Your task to perform on an android device: clear all cookies in the chrome app Image 0: 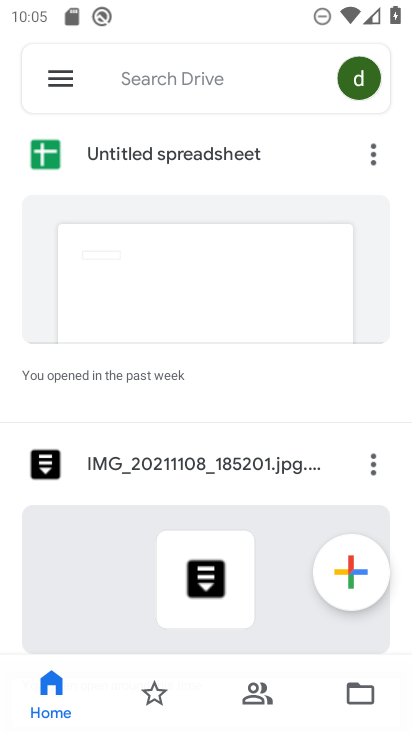
Step 0: press home button
Your task to perform on an android device: clear all cookies in the chrome app Image 1: 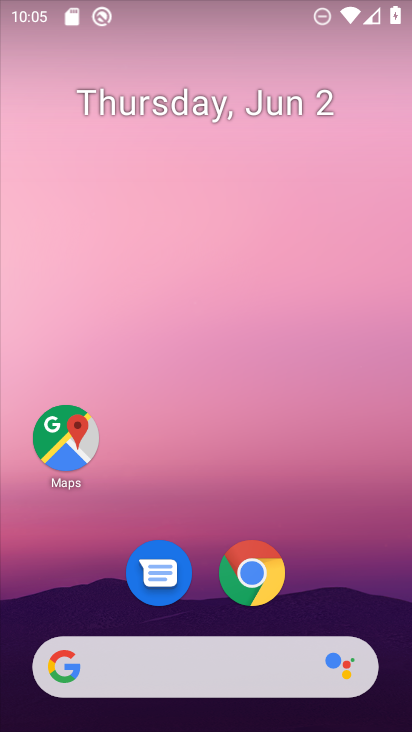
Step 1: click (249, 575)
Your task to perform on an android device: clear all cookies in the chrome app Image 2: 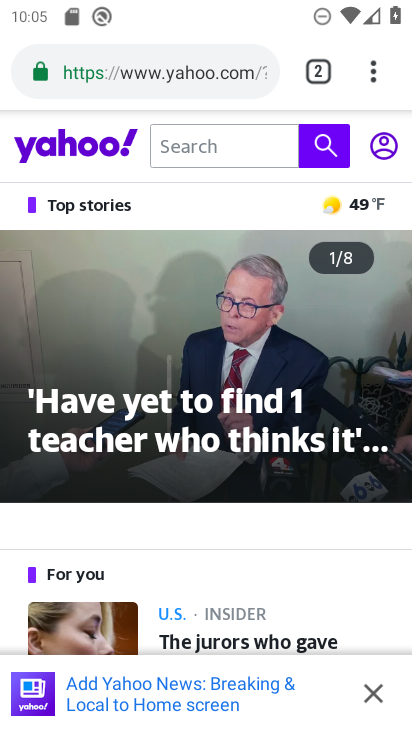
Step 2: drag from (380, 64) to (247, 576)
Your task to perform on an android device: clear all cookies in the chrome app Image 3: 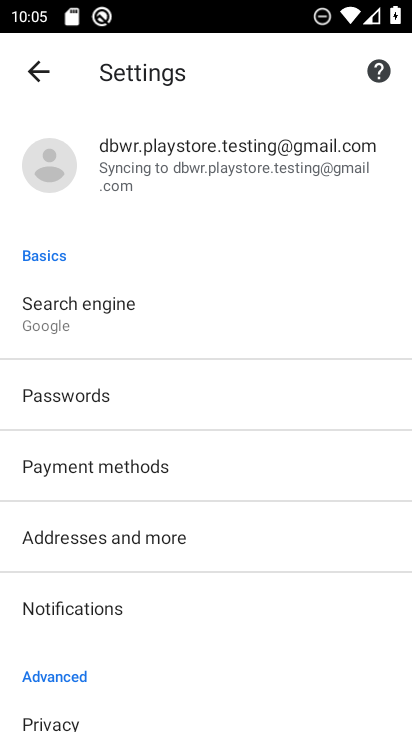
Step 3: click (44, 66)
Your task to perform on an android device: clear all cookies in the chrome app Image 4: 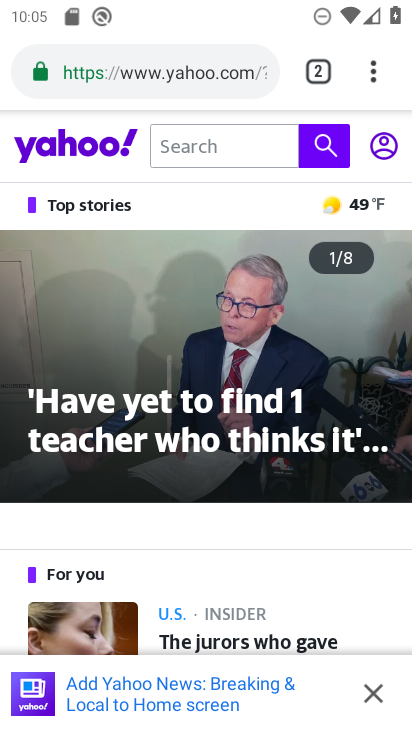
Step 4: drag from (375, 55) to (161, 400)
Your task to perform on an android device: clear all cookies in the chrome app Image 5: 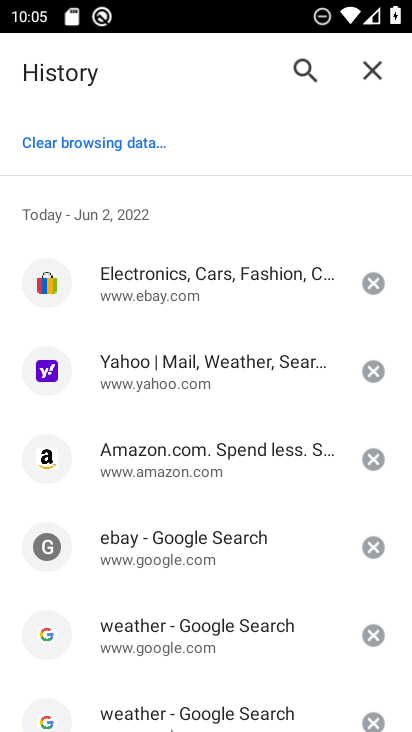
Step 5: click (135, 148)
Your task to perform on an android device: clear all cookies in the chrome app Image 6: 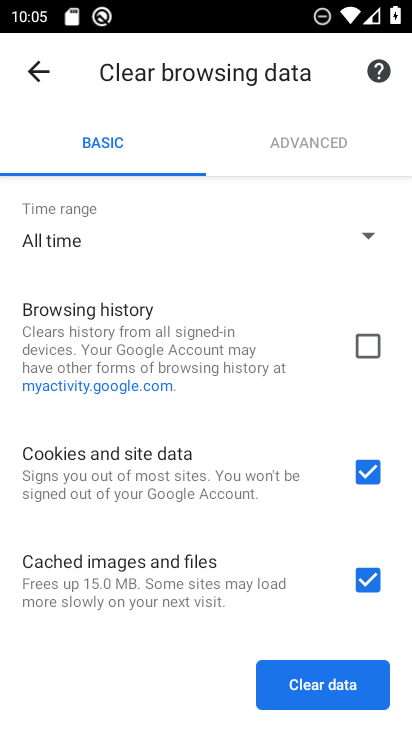
Step 6: click (353, 683)
Your task to perform on an android device: clear all cookies in the chrome app Image 7: 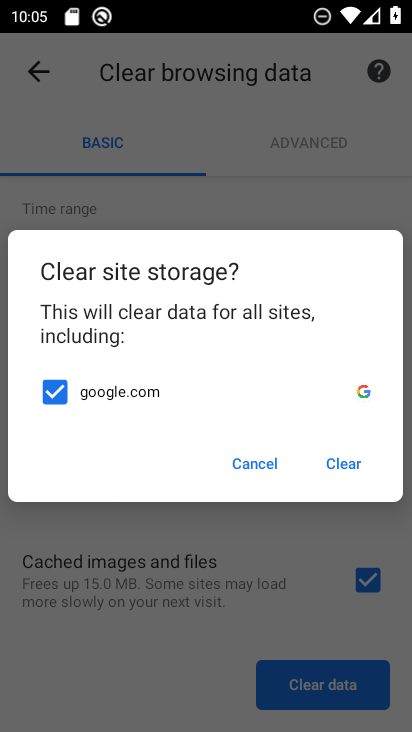
Step 7: click (359, 468)
Your task to perform on an android device: clear all cookies in the chrome app Image 8: 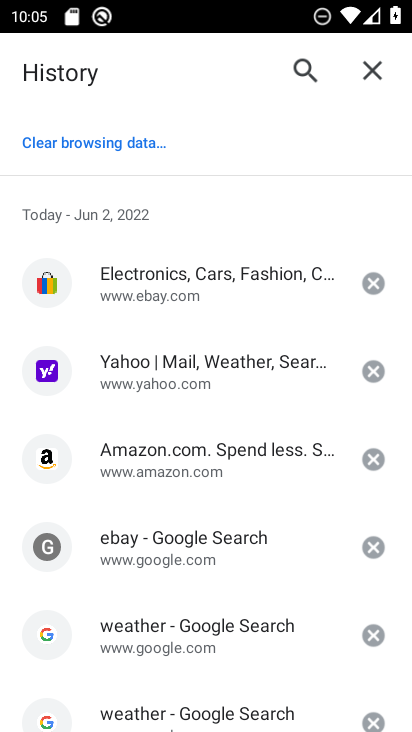
Step 8: task complete